Your task to perform on an android device: delete location history Image 0: 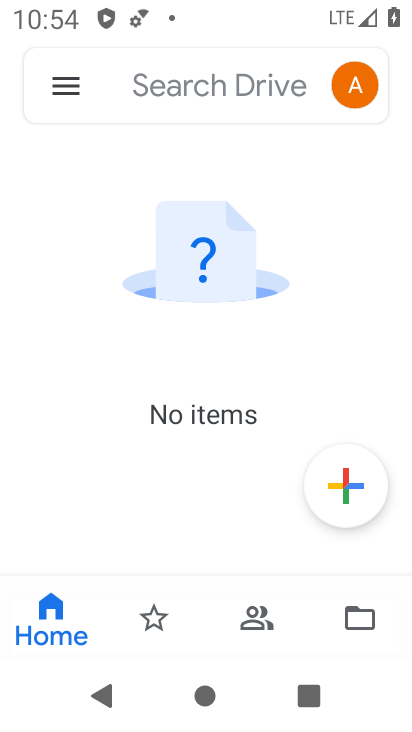
Step 0: press home button
Your task to perform on an android device: delete location history Image 1: 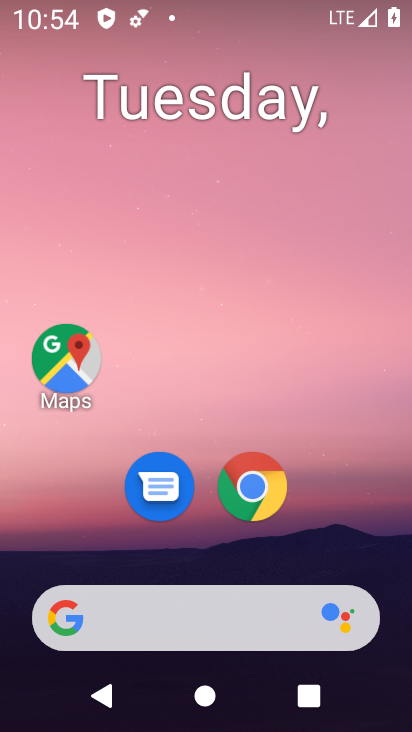
Step 1: drag from (366, 529) to (367, 81)
Your task to perform on an android device: delete location history Image 2: 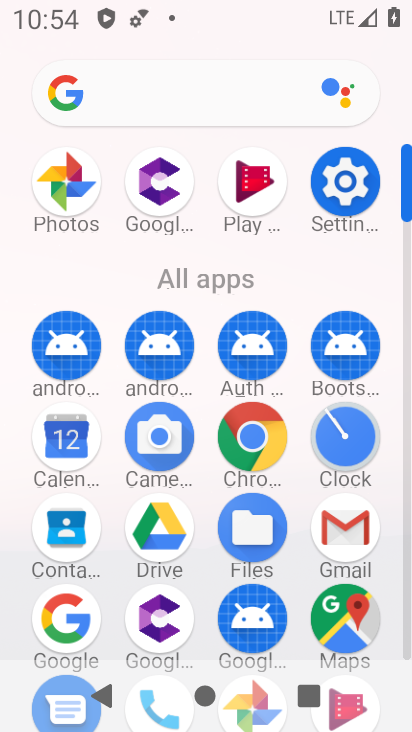
Step 2: click (352, 615)
Your task to perform on an android device: delete location history Image 3: 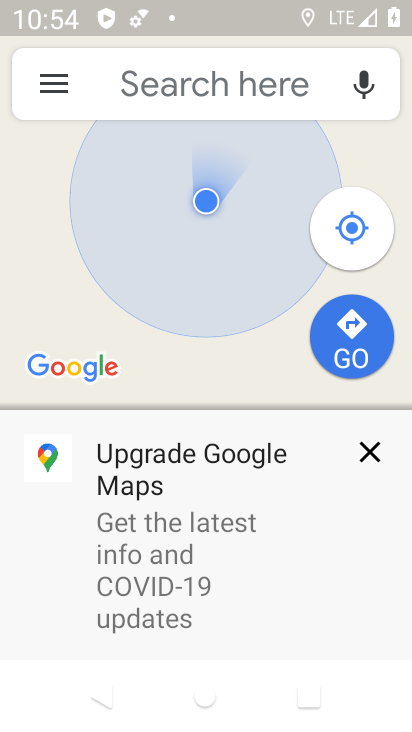
Step 3: click (58, 75)
Your task to perform on an android device: delete location history Image 4: 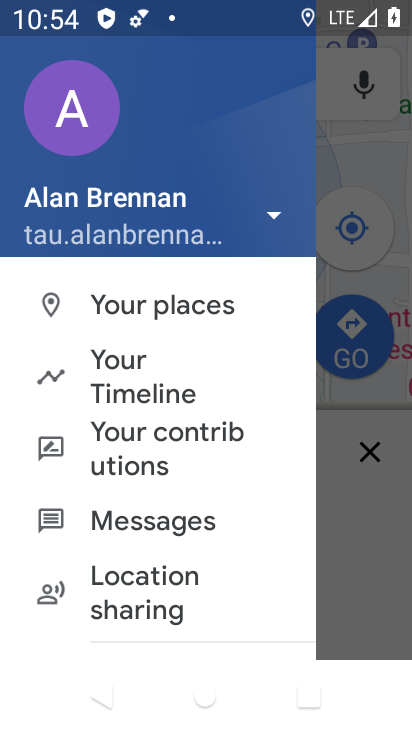
Step 4: drag from (269, 492) to (269, 334)
Your task to perform on an android device: delete location history Image 5: 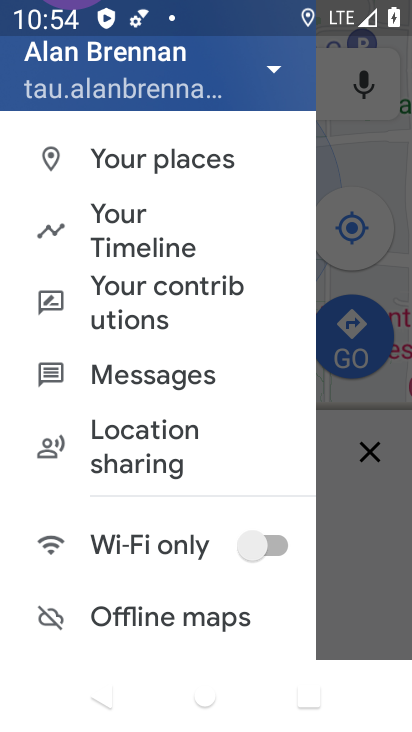
Step 5: click (156, 228)
Your task to perform on an android device: delete location history Image 6: 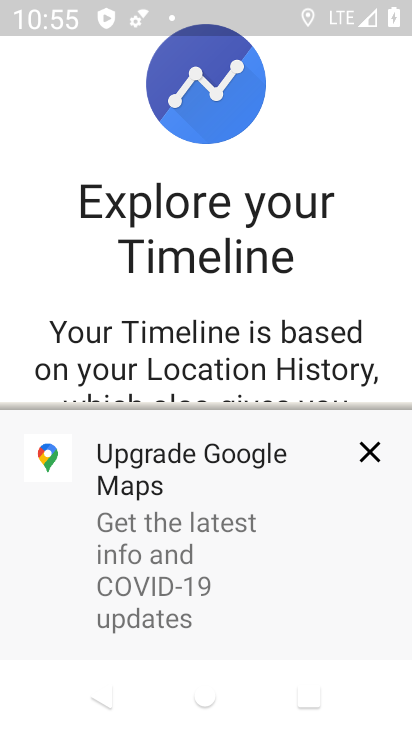
Step 6: click (374, 452)
Your task to perform on an android device: delete location history Image 7: 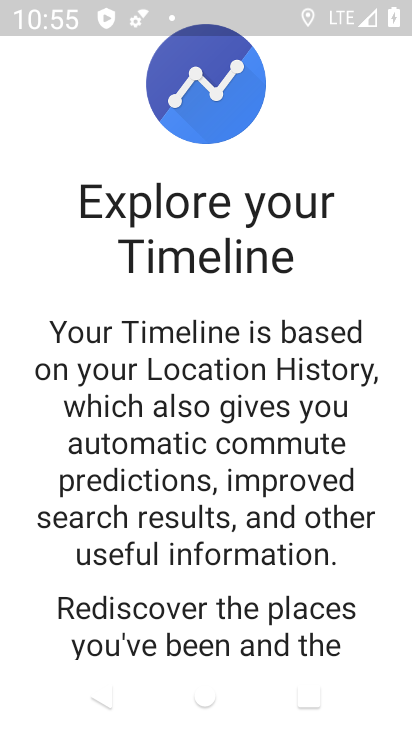
Step 7: drag from (299, 534) to (303, 267)
Your task to perform on an android device: delete location history Image 8: 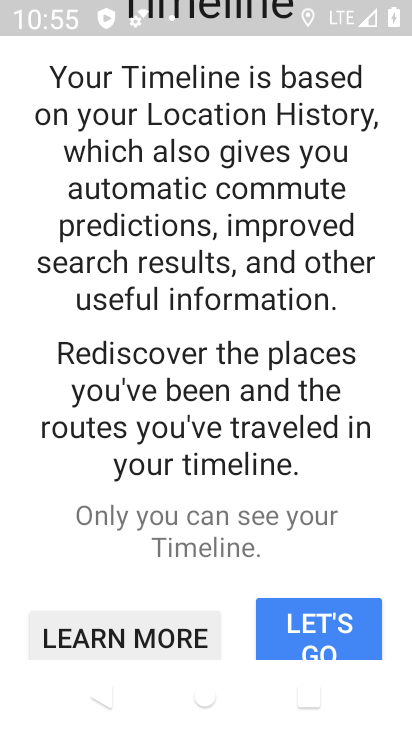
Step 8: drag from (320, 511) to (306, 338)
Your task to perform on an android device: delete location history Image 9: 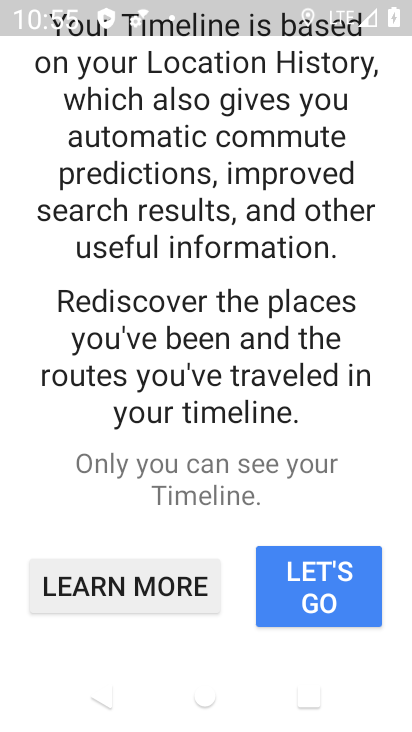
Step 9: click (314, 599)
Your task to perform on an android device: delete location history Image 10: 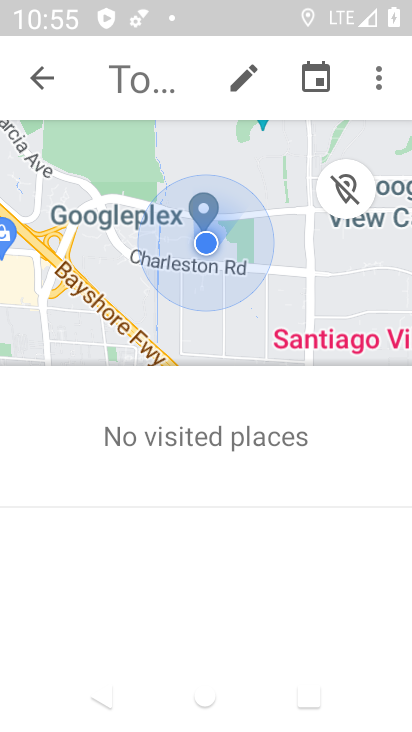
Step 10: click (382, 82)
Your task to perform on an android device: delete location history Image 11: 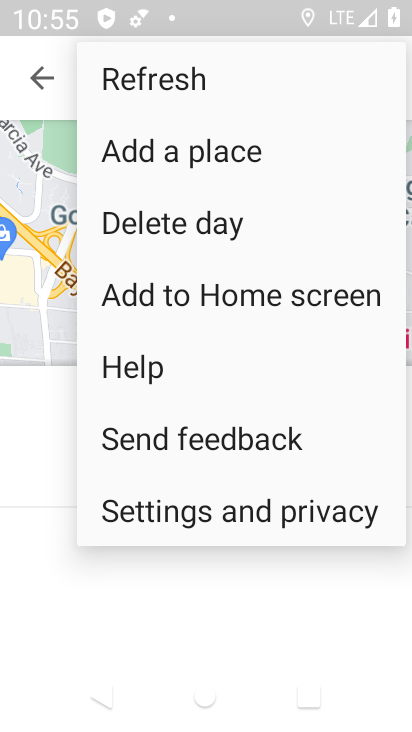
Step 11: click (336, 520)
Your task to perform on an android device: delete location history Image 12: 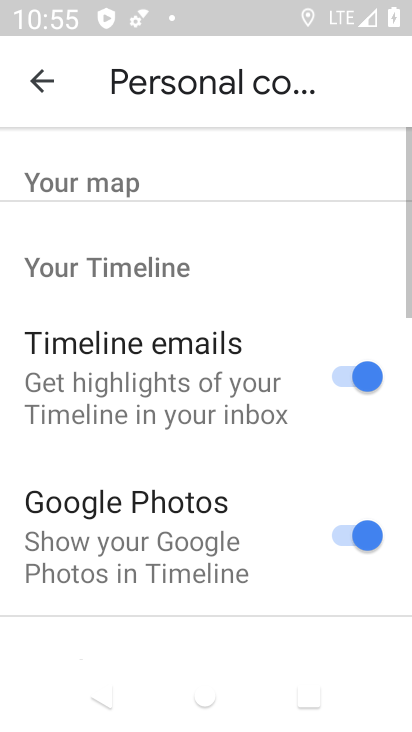
Step 12: drag from (287, 547) to (289, 358)
Your task to perform on an android device: delete location history Image 13: 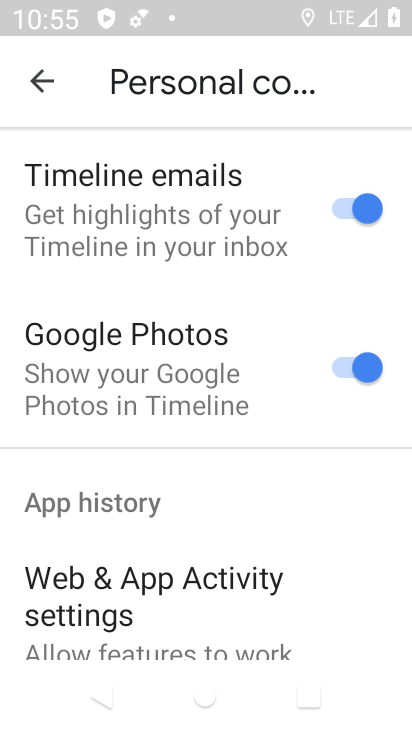
Step 13: drag from (317, 569) to (316, 419)
Your task to perform on an android device: delete location history Image 14: 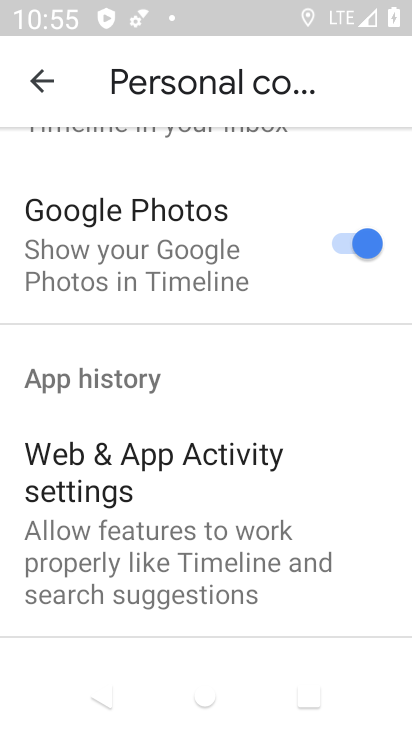
Step 14: drag from (334, 584) to (335, 450)
Your task to perform on an android device: delete location history Image 15: 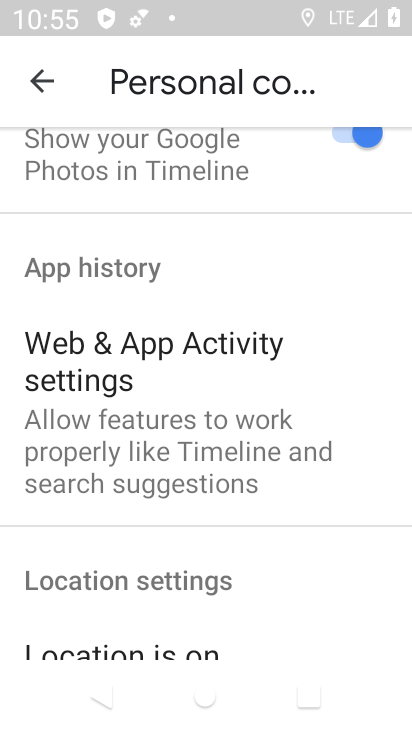
Step 15: drag from (323, 579) to (323, 414)
Your task to perform on an android device: delete location history Image 16: 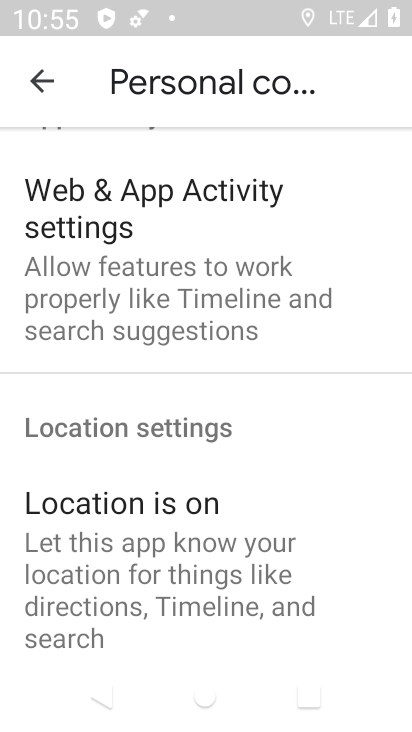
Step 16: drag from (337, 544) to (324, 368)
Your task to perform on an android device: delete location history Image 17: 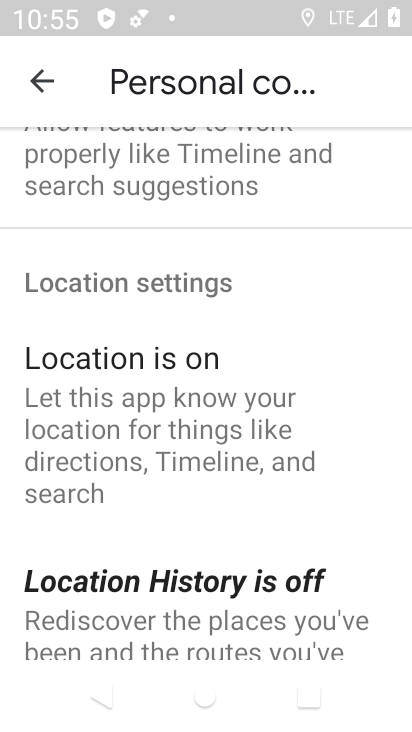
Step 17: drag from (353, 556) to (352, 370)
Your task to perform on an android device: delete location history Image 18: 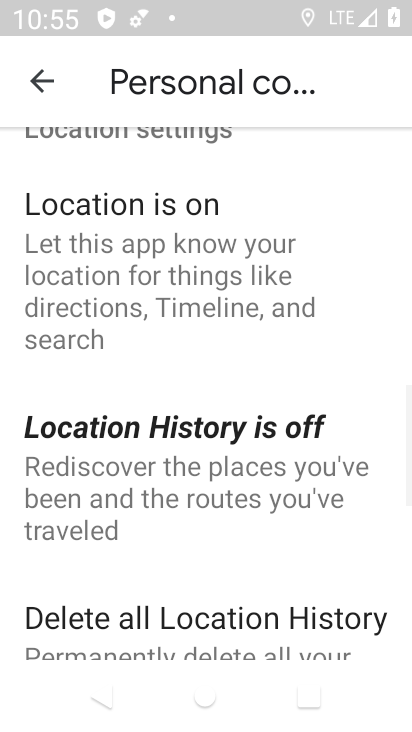
Step 18: drag from (355, 535) to (346, 398)
Your task to perform on an android device: delete location history Image 19: 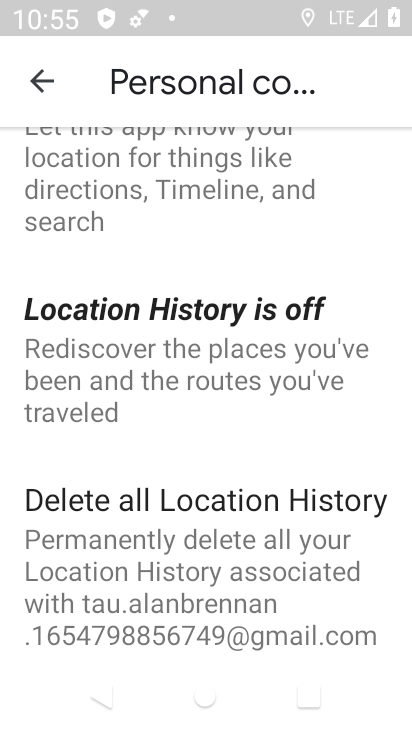
Step 19: click (308, 554)
Your task to perform on an android device: delete location history Image 20: 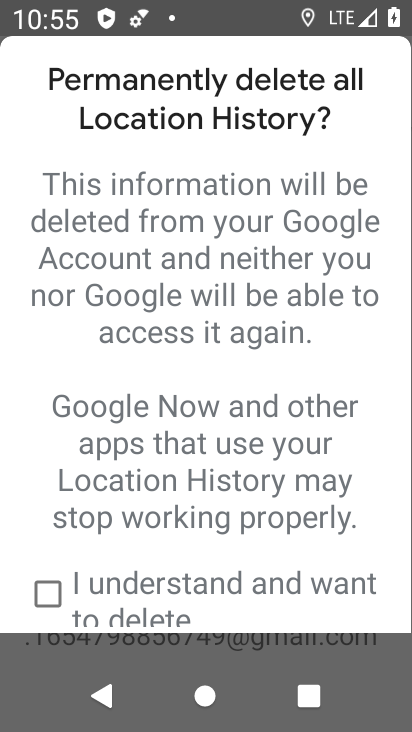
Step 20: drag from (173, 512) to (174, 227)
Your task to perform on an android device: delete location history Image 21: 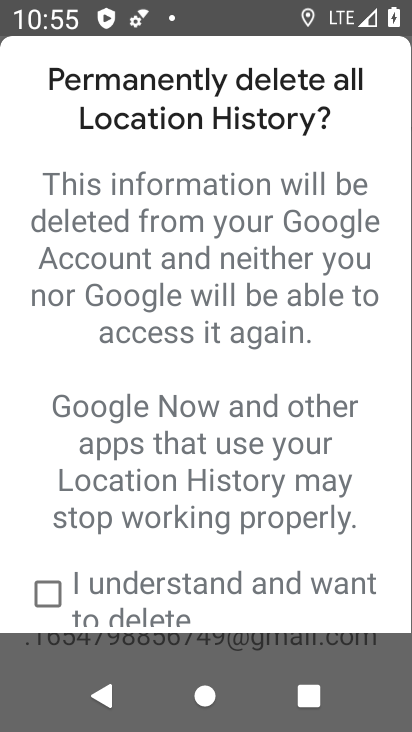
Step 21: click (51, 597)
Your task to perform on an android device: delete location history Image 22: 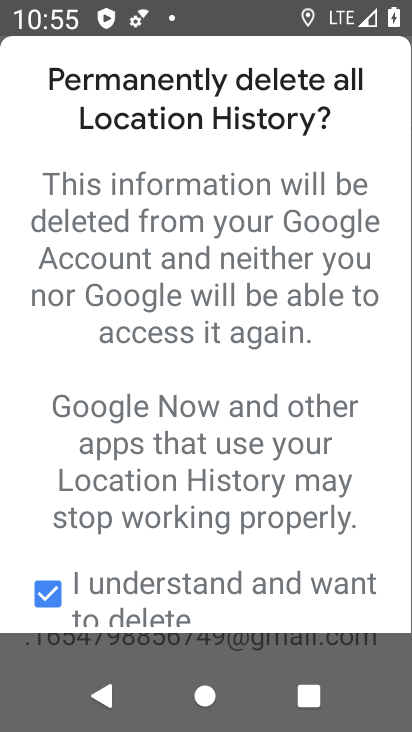
Step 22: task complete